Your task to perform on an android device: Go to Google maps Image 0: 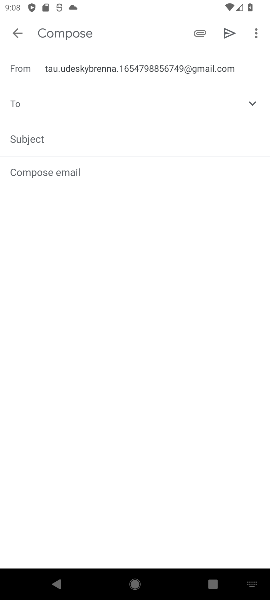
Step 0: press home button
Your task to perform on an android device: Go to Google maps Image 1: 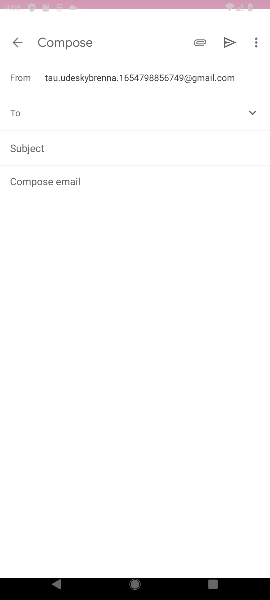
Step 1: drag from (118, 492) to (174, 142)
Your task to perform on an android device: Go to Google maps Image 2: 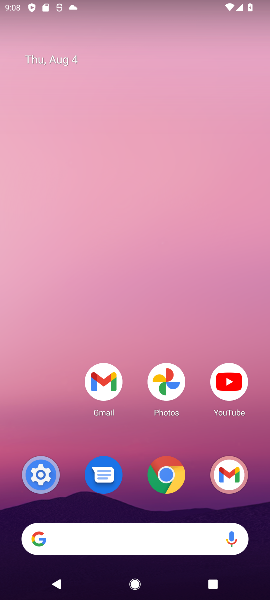
Step 2: drag from (119, 499) to (103, 194)
Your task to perform on an android device: Go to Google maps Image 3: 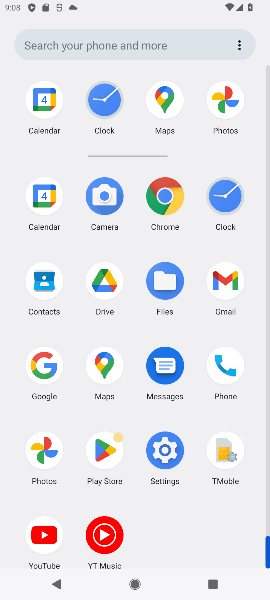
Step 3: click (107, 368)
Your task to perform on an android device: Go to Google maps Image 4: 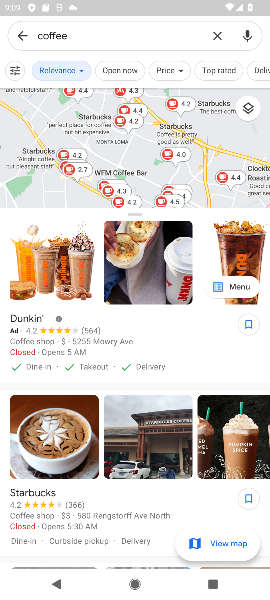
Step 4: drag from (129, 505) to (197, 163)
Your task to perform on an android device: Go to Google maps Image 5: 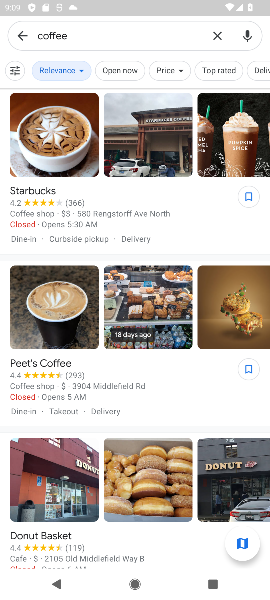
Step 5: drag from (153, 418) to (169, 173)
Your task to perform on an android device: Go to Google maps Image 6: 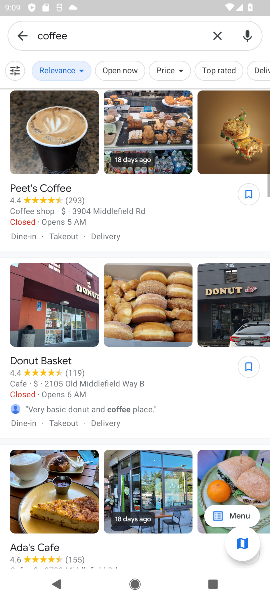
Step 6: drag from (124, 434) to (177, 117)
Your task to perform on an android device: Go to Google maps Image 7: 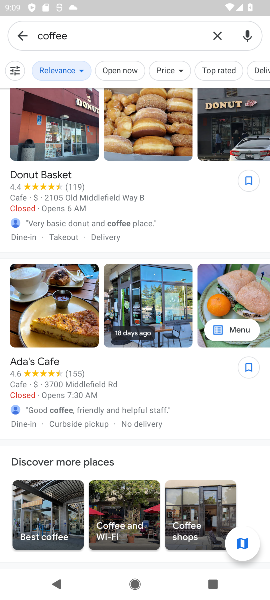
Step 7: drag from (129, 445) to (147, 192)
Your task to perform on an android device: Go to Google maps Image 8: 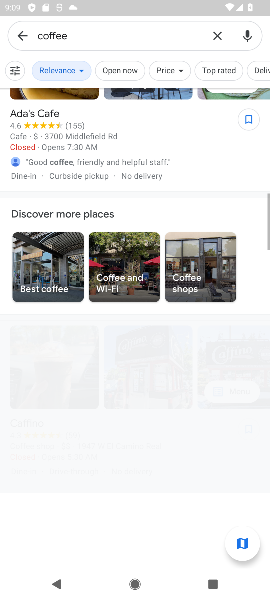
Step 8: drag from (151, 179) to (176, 596)
Your task to perform on an android device: Go to Google maps Image 9: 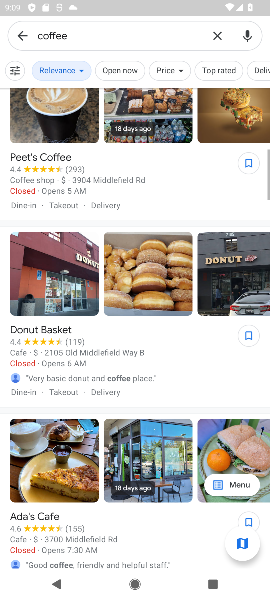
Step 9: drag from (158, 201) to (199, 537)
Your task to perform on an android device: Go to Google maps Image 10: 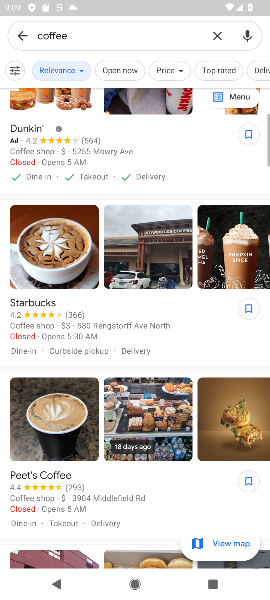
Step 10: drag from (153, 184) to (203, 480)
Your task to perform on an android device: Go to Google maps Image 11: 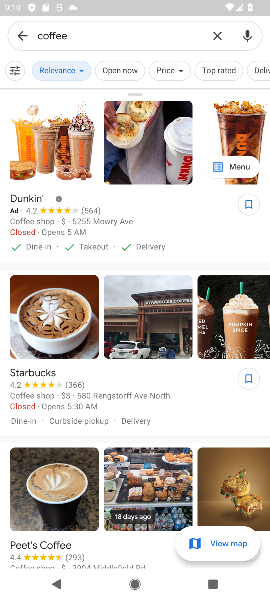
Step 11: click (216, 37)
Your task to perform on an android device: Go to Google maps Image 12: 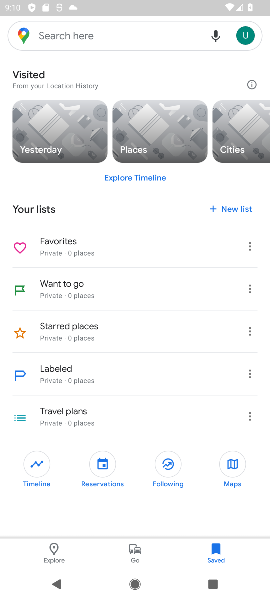
Step 12: click (64, 31)
Your task to perform on an android device: Go to Google maps Image 13: 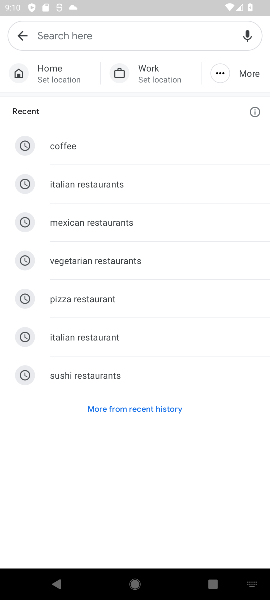
Step 13: type "Google maps"
Your task to perform on an android device: Go to Google maps Image 14: 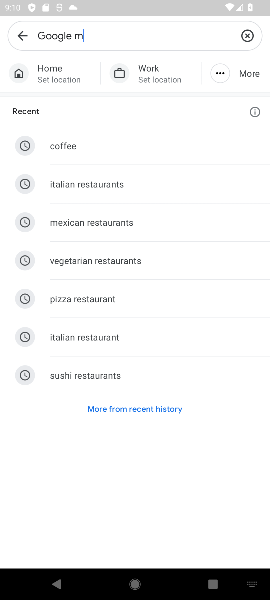
Step 14: type ""
Your task to perform on an android device: Go to Google maps Image 15: 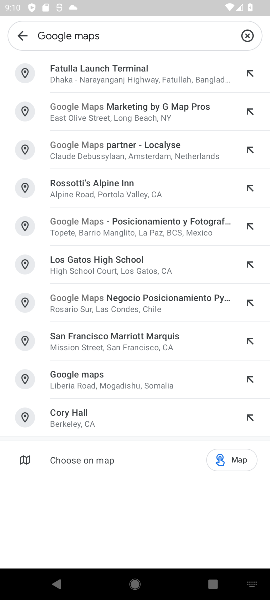
Step 15: click (246, 36)
Your task to perform on an android device: Go to Google maps Image 16: 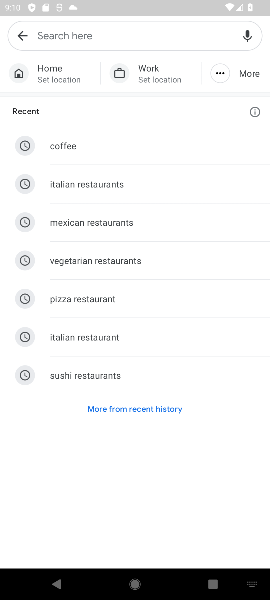
Step 16: click (12, 34)
Your task to perform on an android device: Go to Google maps Image 17: 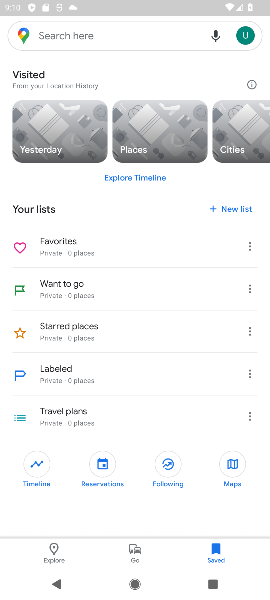
Step 17: task complete